Your task to perform on an android device: Open display settings Image 0: 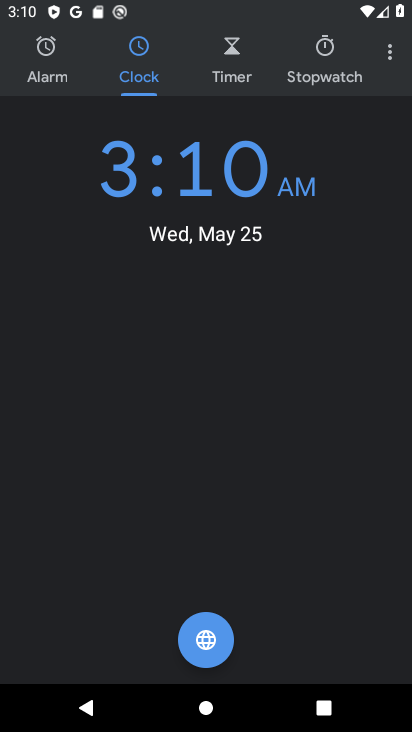
Step 0: press home button
Your task to perform on an android device: Open display settings Image 1: 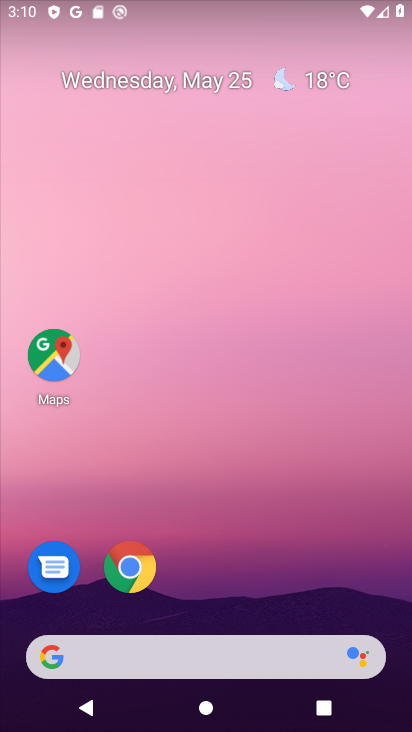
Step 1: drag from (390, 618) to (398, 100)
Your task to perform on an android device: Open display settings Image 2: 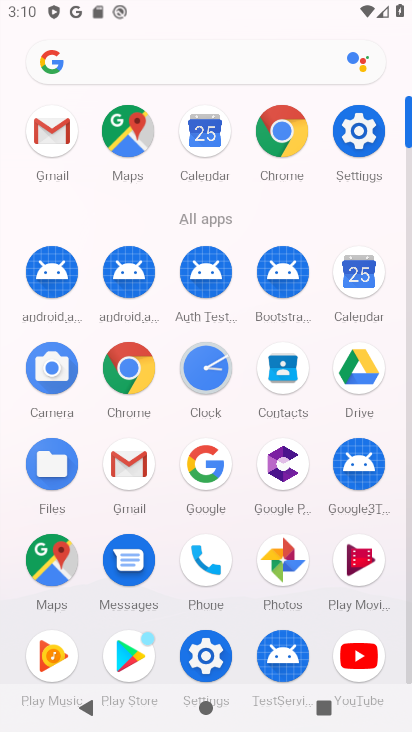
Step 2: click (355, 162)
Your task to perform on an android device: Open display settings Image 3: 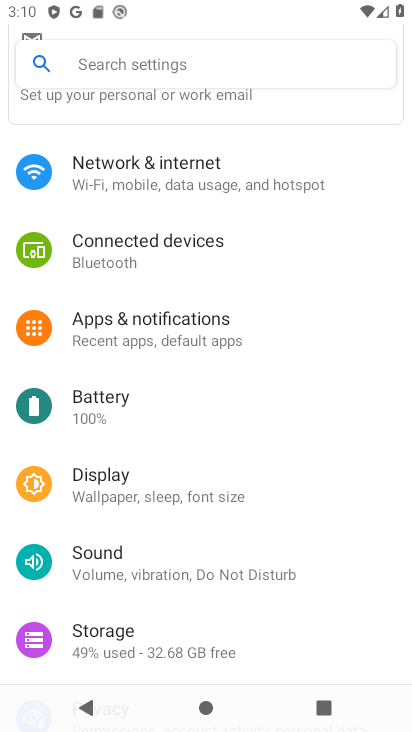
Step 3: drag from (346, 477) to (343, 348)
Your task to perform on an android device: Open display settings Image 4: 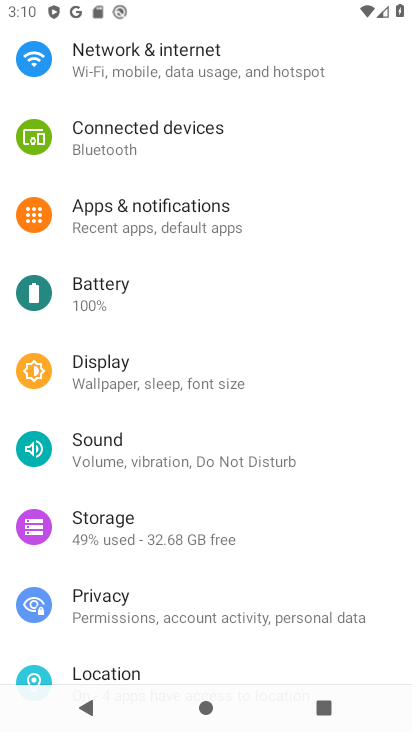
Step 4: drag from (335, 520) to (333, 367)
Your task to perform on an android device: Open display settings Image 5: 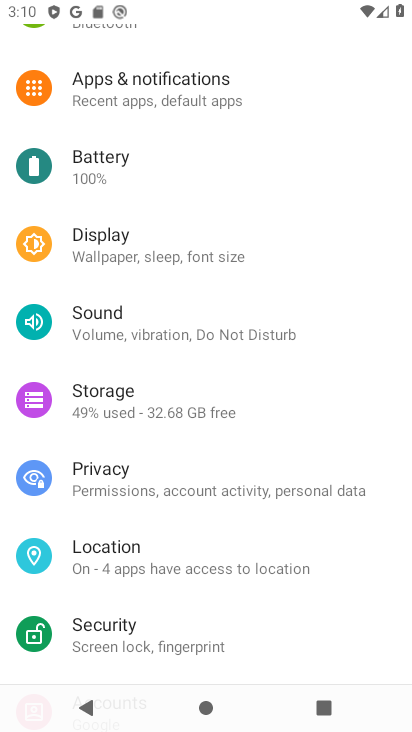
Step 5: drag from (356, 577) to (362, 368)
Your task to perform on an android device: Open display settings Image 6: 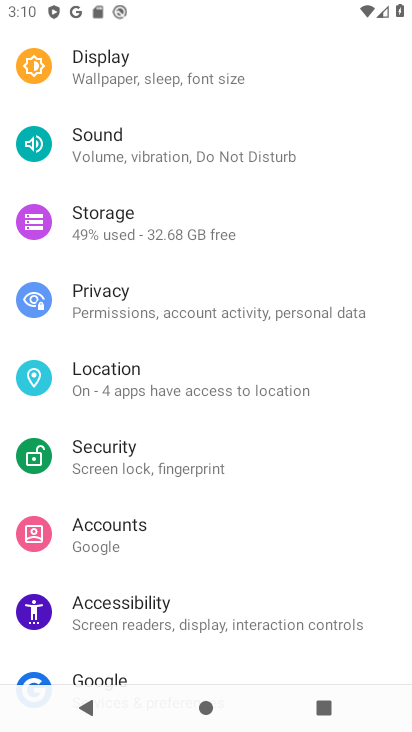
Step 6: drag from (371, 601) to (376, 395)
Your task to perform on an android device: Open display settings Image 7: 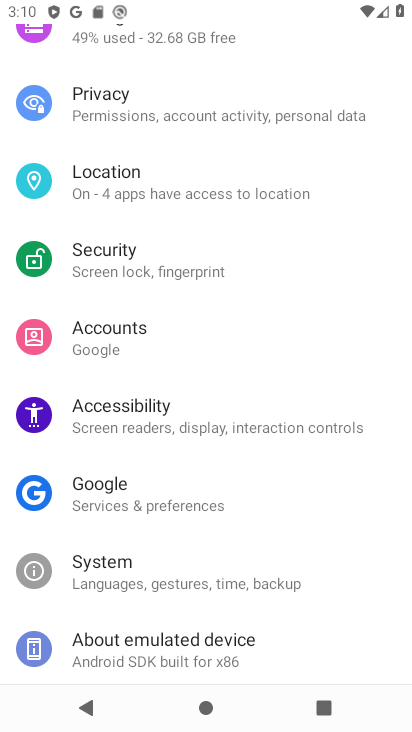
Step 7: drag from (356, 571) to (350, 385)
Your task to perform on an android device: Open display settings Image 8: 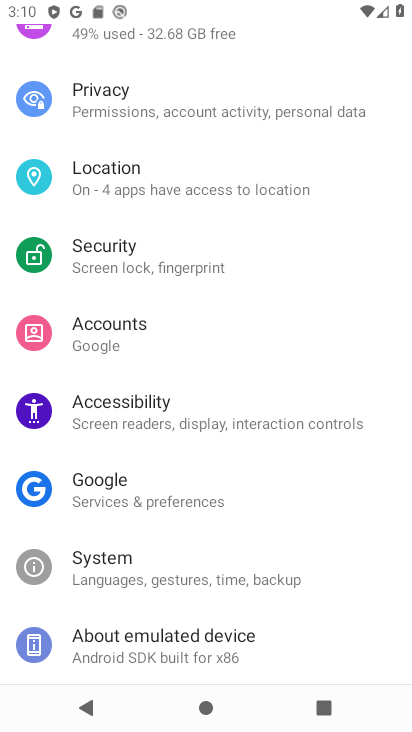
Step 8: drag from (354, 301) to (362, 467)
Your task to perform on an android device: Open display settings Image 9: 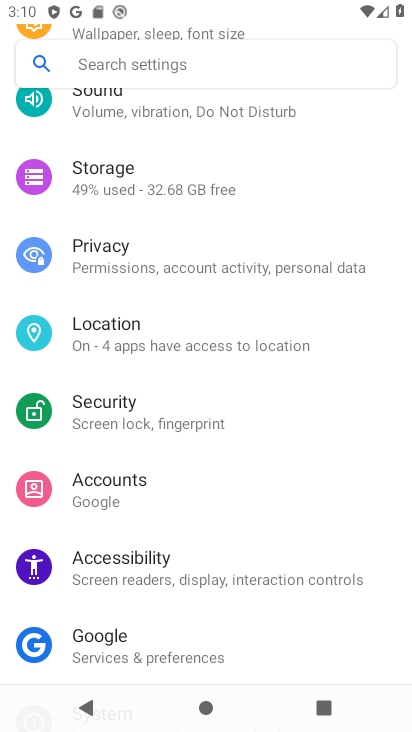
Step 9: drag from (362, 300) to (364, 452)
Your task to perform on an android device: Open display settings Image 10: 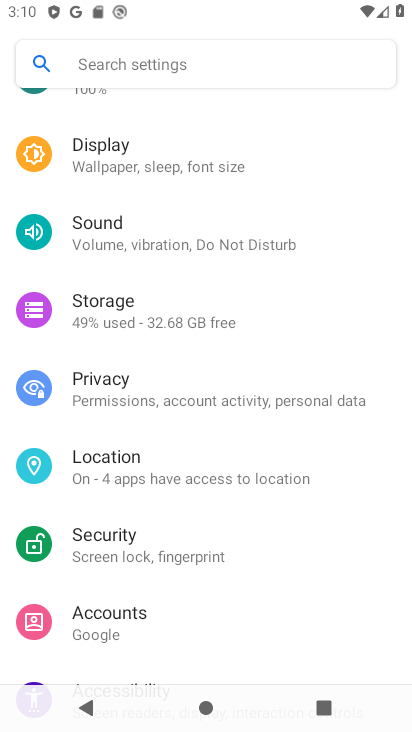
Step 10: drag from (346, 233) to (342, 449)
Your task to perform on an android device: Open display settings Image 11: 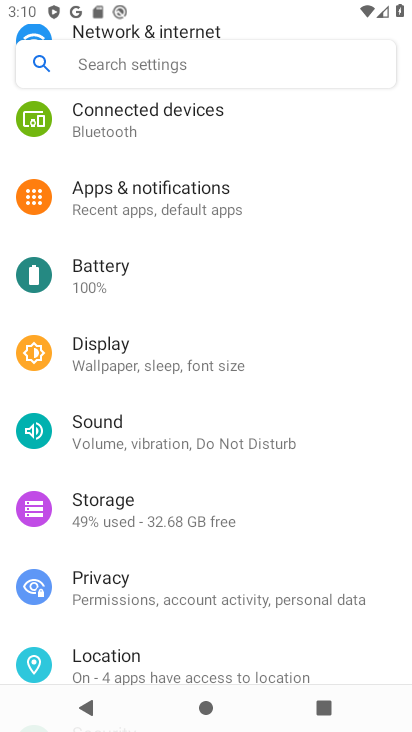
Step 11: drag from (331, 279) to (337, 458)
Your task to perform on an android device: Open display settings Image 12: 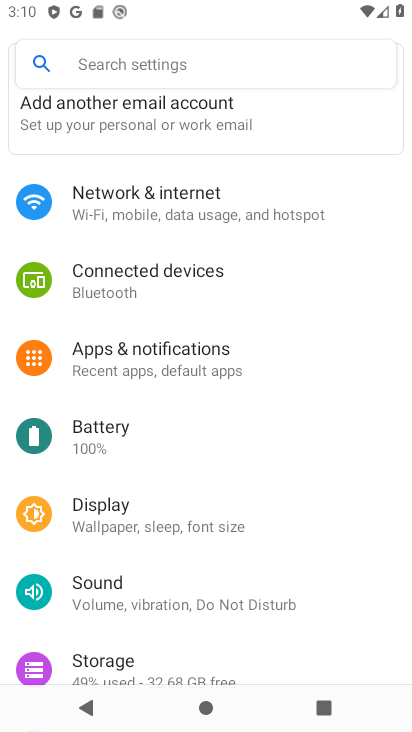
Step 12: drag from (333, 509) to (333, 378)
Your task to perform on an android device: Open display settings Image 13: 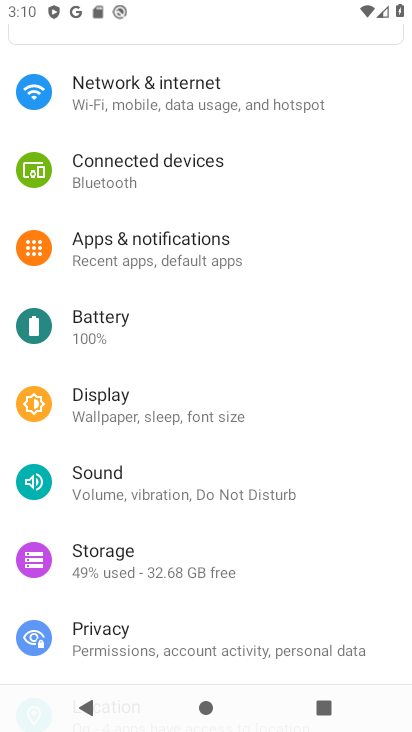
Step 13: click (207, 423)
Your task to perform on an android device: Open display settings Image 14: 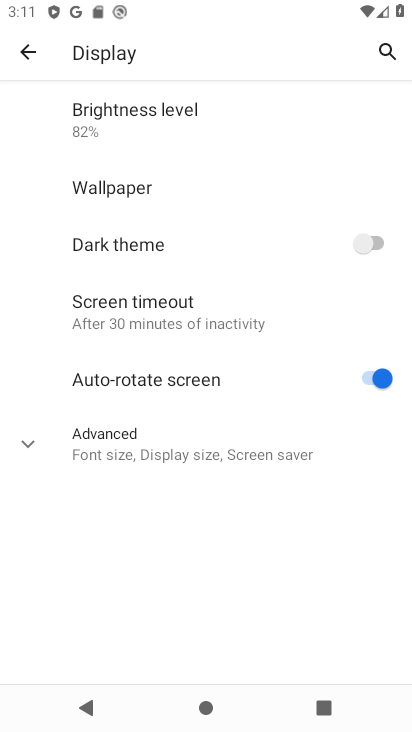
Step 14: click (236, 451)
Your task to perform on an android device: Open display settings Image 15: 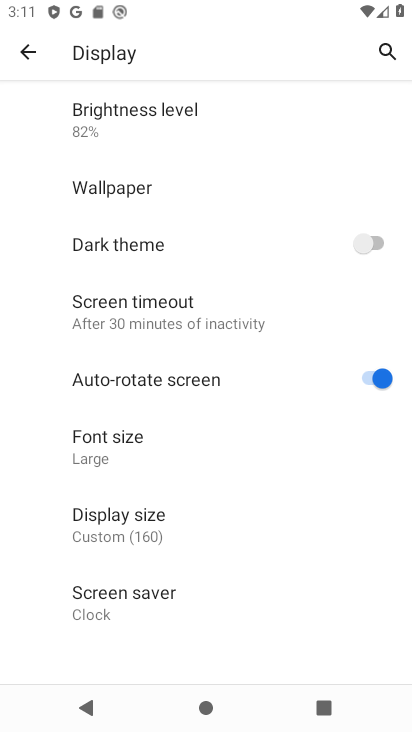
Step 15: task complete